Your task to perform on an android device: see sites visited before in the chrome app Image 0: 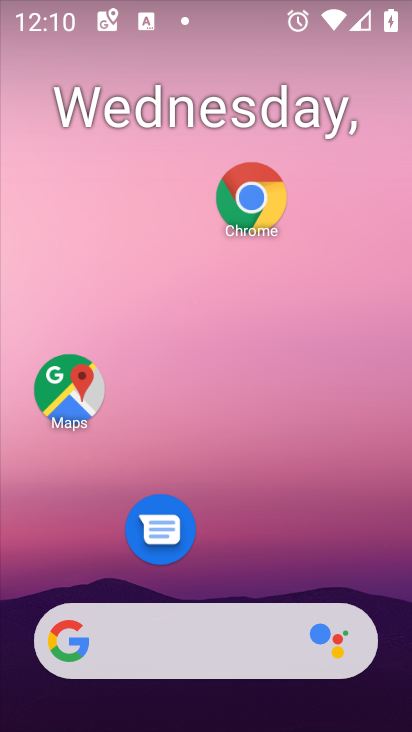
Step 0: click (239, 226)
Your task to perform on an android device: see sites visited before in the chrome app Image 1: 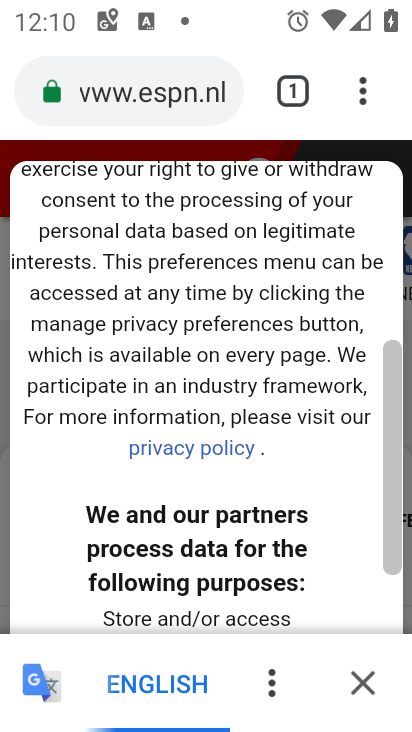
Step 1: click (369, 103)
Your task to perform on an android device: see sites visited before in the chrome app Image 2: 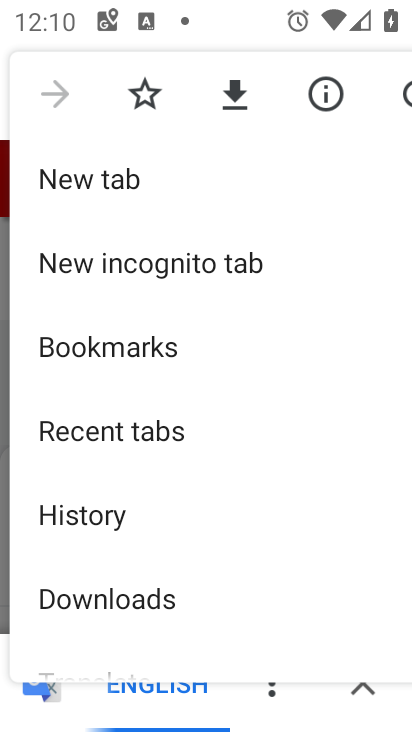
Step 2: drag from (197, 433) to (212, 272)
Your task to perform on an android device: see sites visited before in the chrome app Image 3: 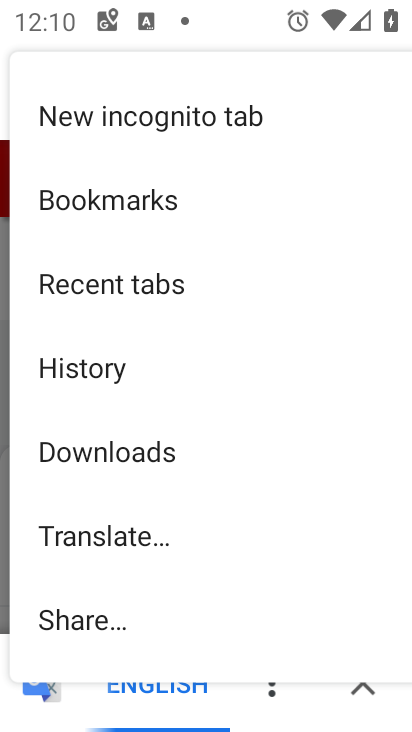
Step 3: click (112, 365)
Your task to perform on an android device: see sites visited before in the chrome app Image 4: 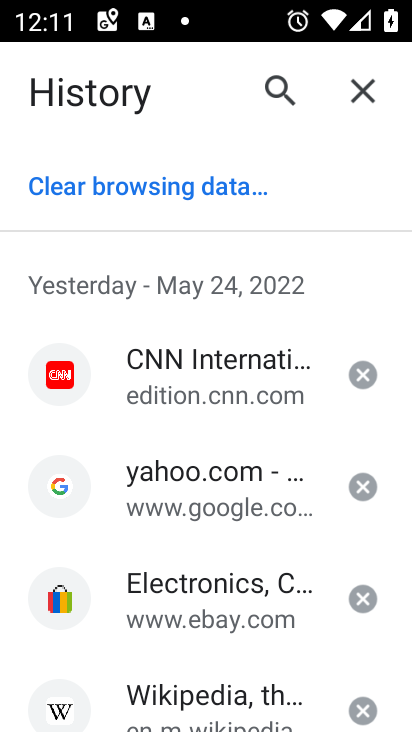
Step 4: task complete